Your task to perform on an android device: turn on showing notifications on the lock screen Image 0: 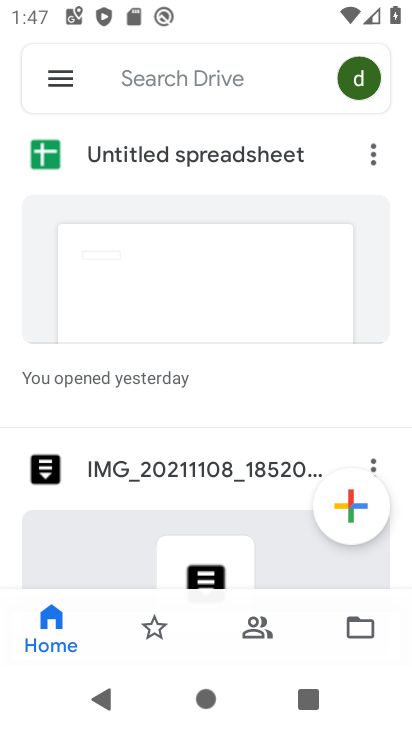
Step 0: press home button
Your task to perform on an android device: turn on showing notifications on the lock screen Image 1: 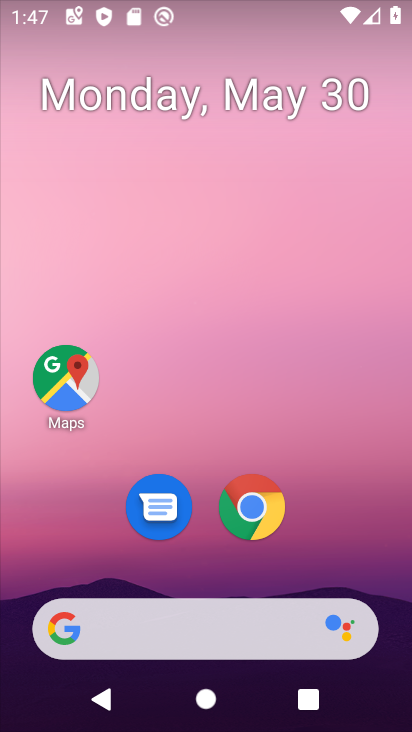
Step 1: drag from (253, 547) to (273, 155)
Your task to perform on an android device: turn on showing notifications on the lock screen Image 2: 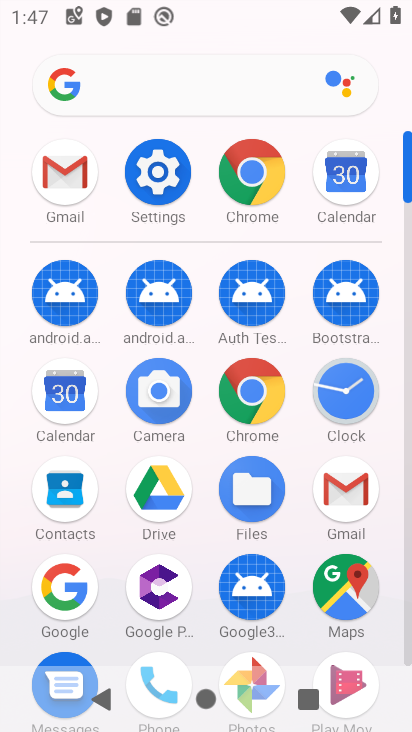
Step 2: drag from (203, 639) to (127, 76)
Your task to perform on an android device: turn on showing notifications on the lock screen Image 3: 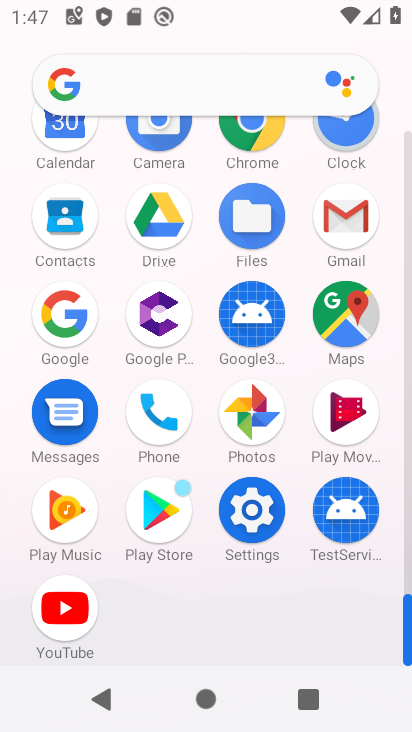
Step 3: click (233, 529)
Your task to perform on an android device: turn on showing notifications on the lock screen Image 4: 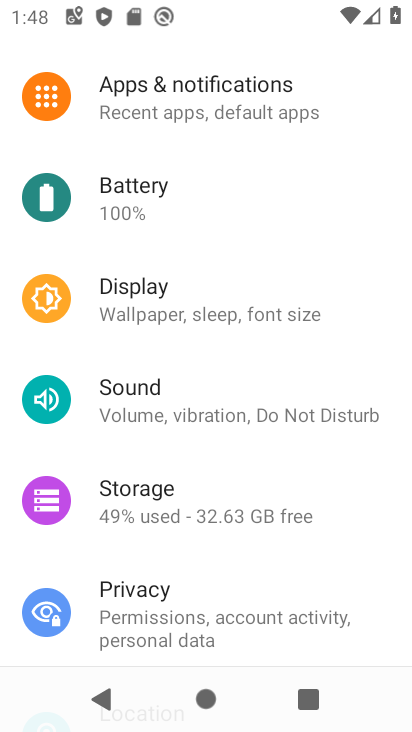
Step 4: click (199, 115)
Your task to perform on an android device: turn on showing notifications on the lock screen Image 5: 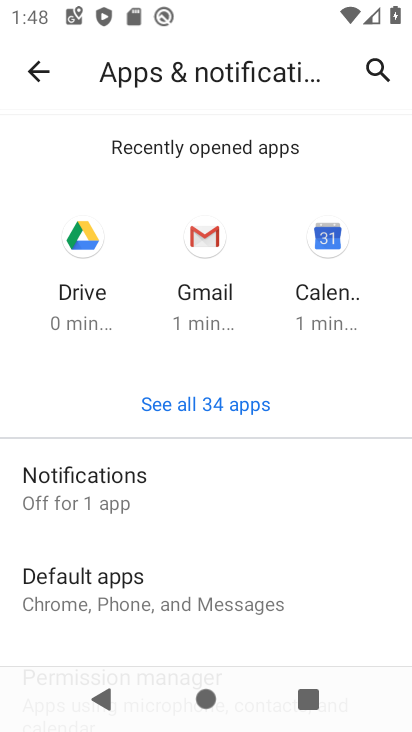
Step 5: click (123, 511)
Your task to perform on an android device: turn on showing notifications on the lock screen Image 6: 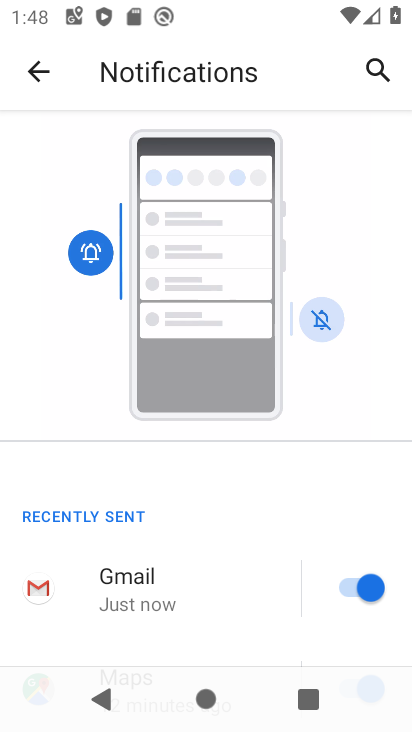
Step 6: drag from (222, 621) to (250, 131)
Your task to perform on an android device: turn on showing notifications on the lock screen Image 7: 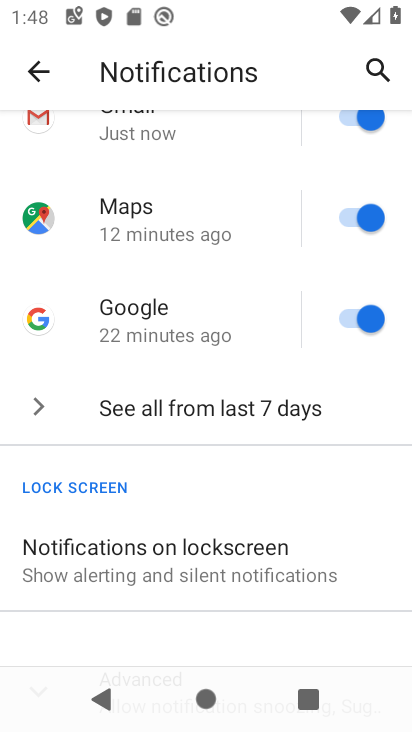
Step 7: click (170, 591)
Your task to perform on an android device: turn on showing notifications on the lock screen Image 8: 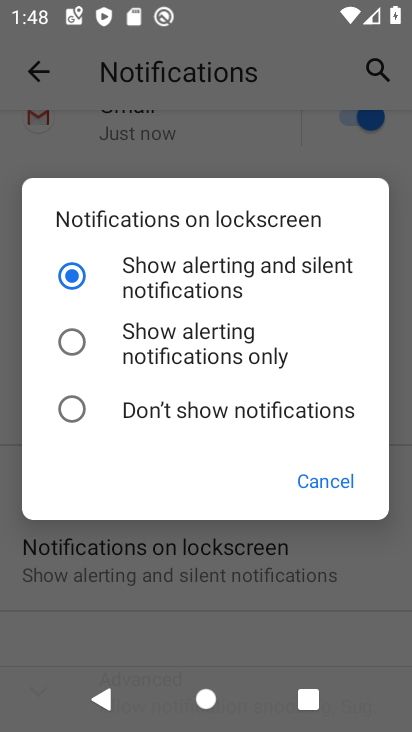
Step 8: task complete